Your task to perform on an android device: snooze an email in the gmail app Image 0: 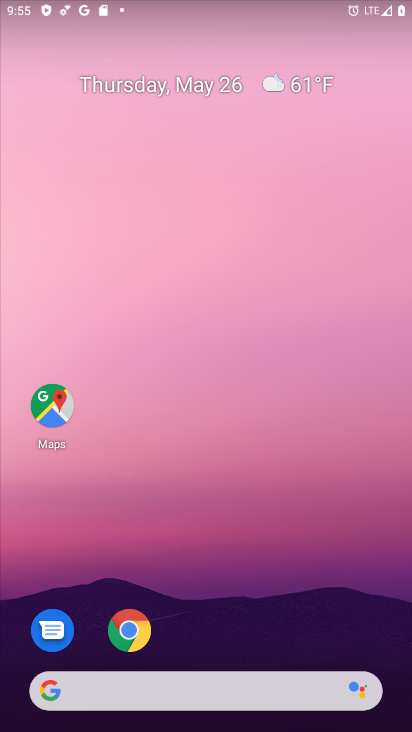
Step 0: drag from (187, 650) to (171, 51)
Your task to perform on an android device: snooze an email in the gmail app Image 1: 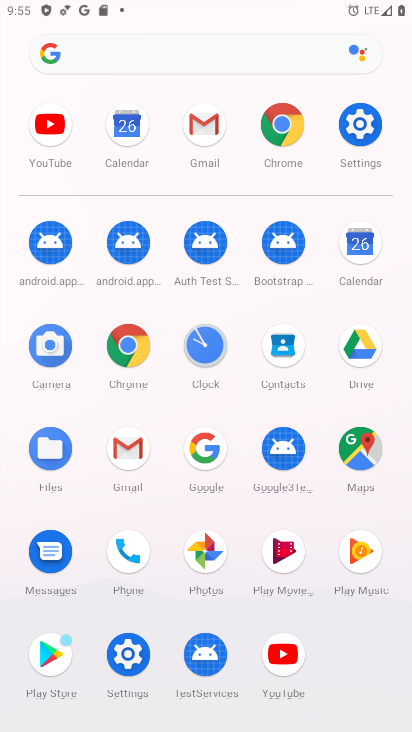
Step 1: click (136, 445)
Your task to perform on an android device: snooze an email in the gmail app Image 2: 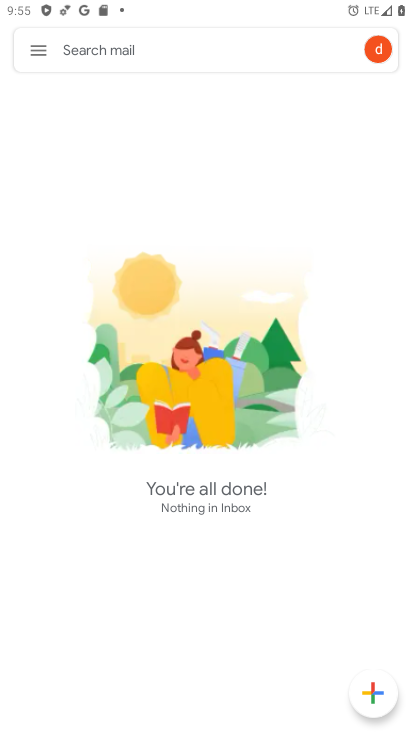
Step 2: click (38, 50)
Your task to perform on an android device: snooze an email in the gmail app Image 3: 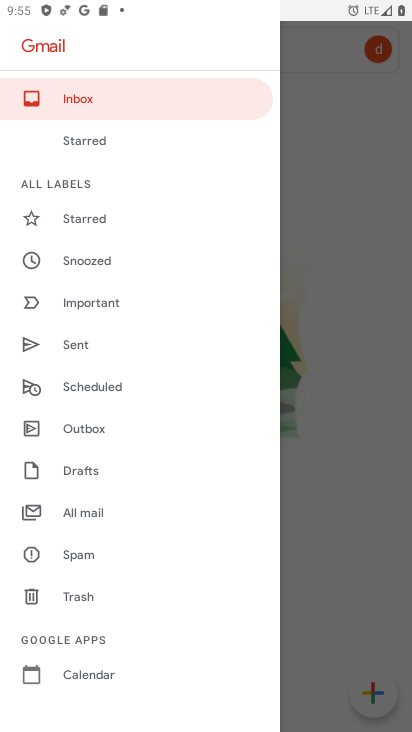
Step 3: click (69, 253)
Your task to perform on an android device: snooze an email in the gmail app Image 4: 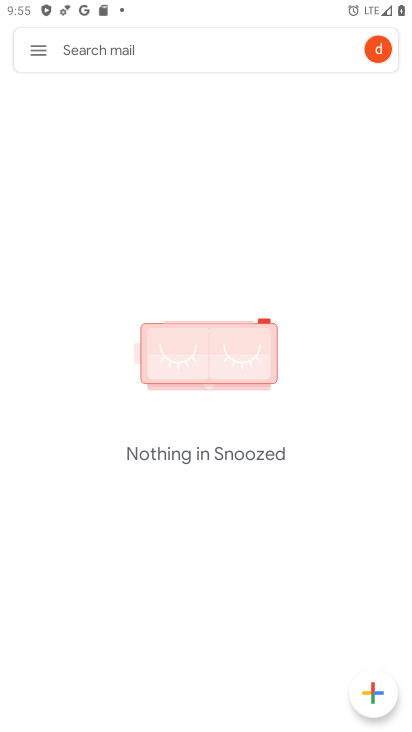
Step 4: task complete